Your task to perform on an android device: open a new tab in the chrome app Image 0: 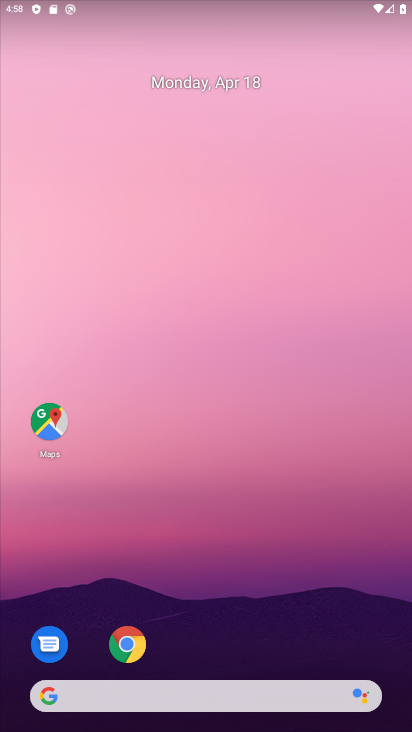
Step 0: press home button
Your task to perform on an android device: open a new tab in the chrome app Image 1: 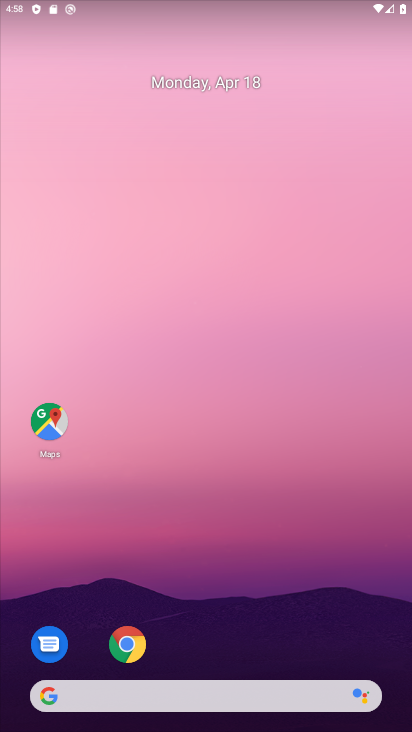
Step 1: drag from (196, 611) to (211, 17)
Your task to perform on an android device: open a new tab in the chrome app Image 2: 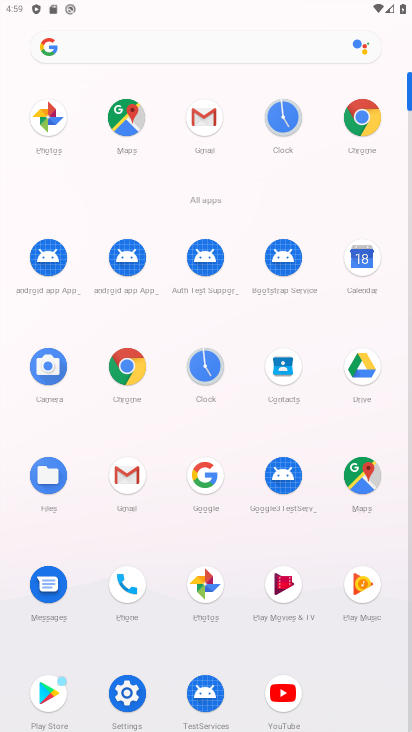
Step 2: click (358, 116)
Your task to perform on an android device: open a new tab in the chrome app Image 3: 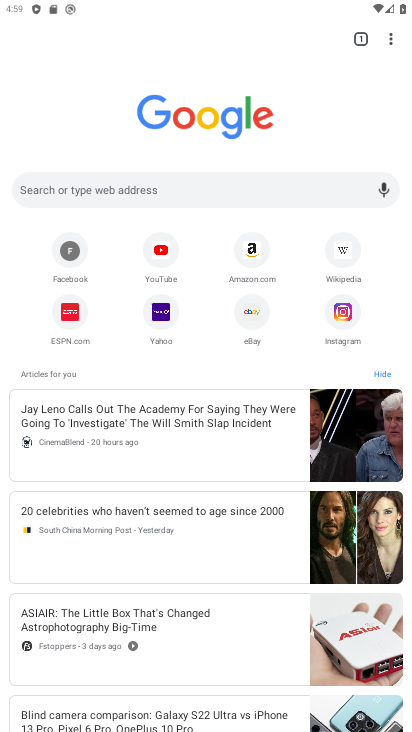
Step 3: click (355, 41)
Your task to perform on an android device: open a new tab in the chrome app Image 4: 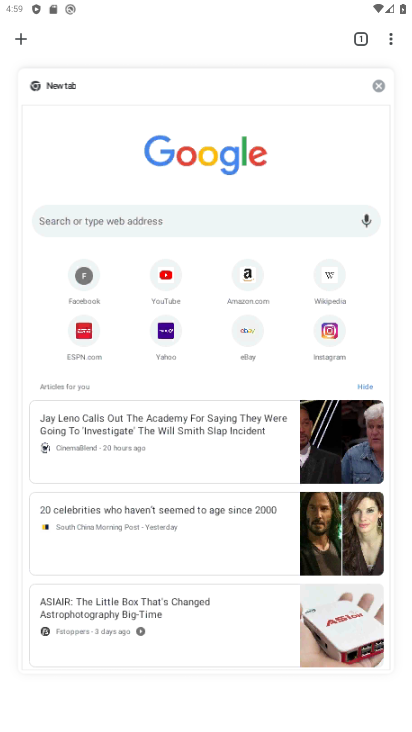
Step 4: click (16, 39)
Your task to perform on an android device: open a new tab in the chrome app Image 5: 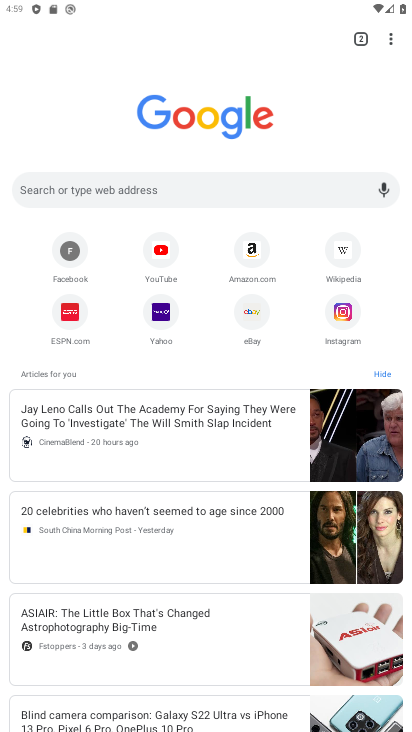
Step 5: task complete